Your task to perform on an android device: Go to sound settings Image 0: 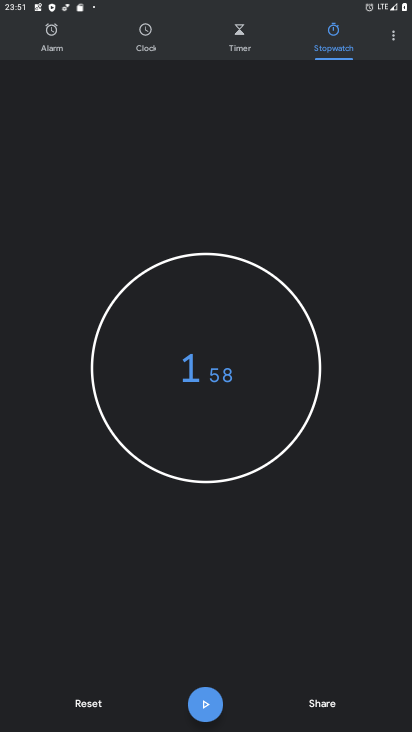
Step 0: press home button
Your task to perform on an android device: Go to sound settings Image 1: 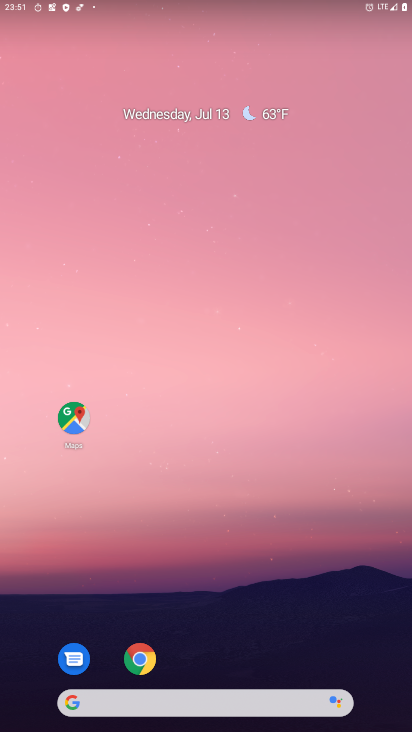
Step 1: drag from (293, 505) to (293, 118)
Your task to perform on an android device: Go to sound settings Image 2: 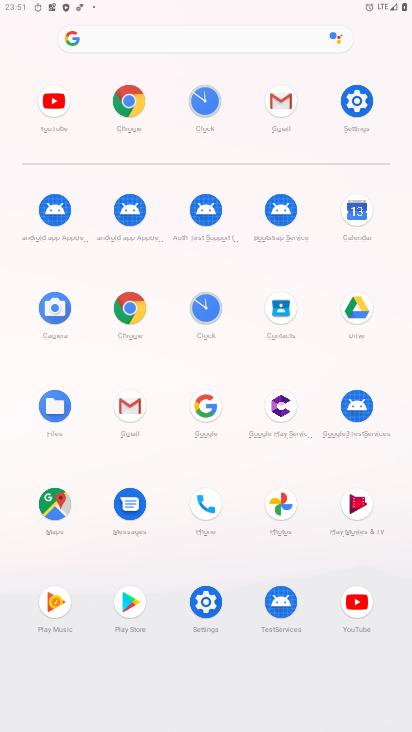
Step 2: click (350, 99)
Your task to perform on an android device: Go to sound settings Image 3: 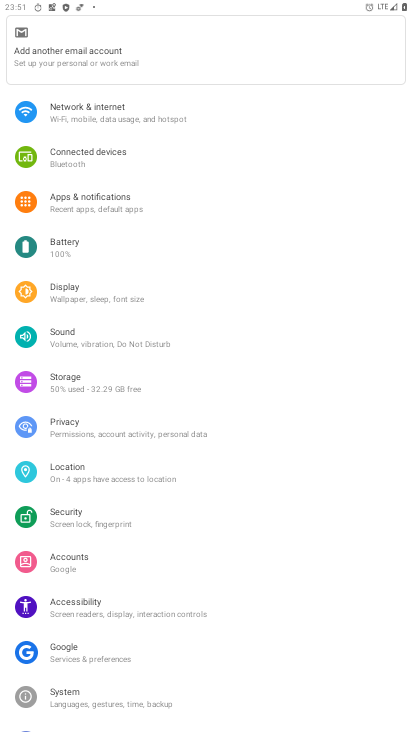
Step 3: click (94, 337)
Your task to perform on an android device: Go to sound settings Image 4: 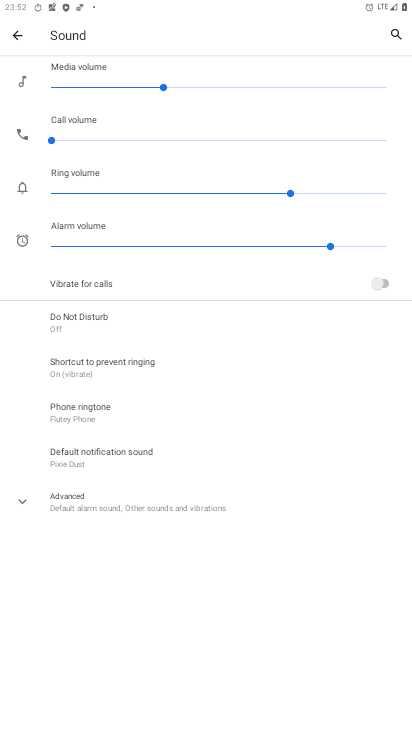
Step 4: task complete